Your task to perform on an android device: Go to Yahoo.com Image 0: 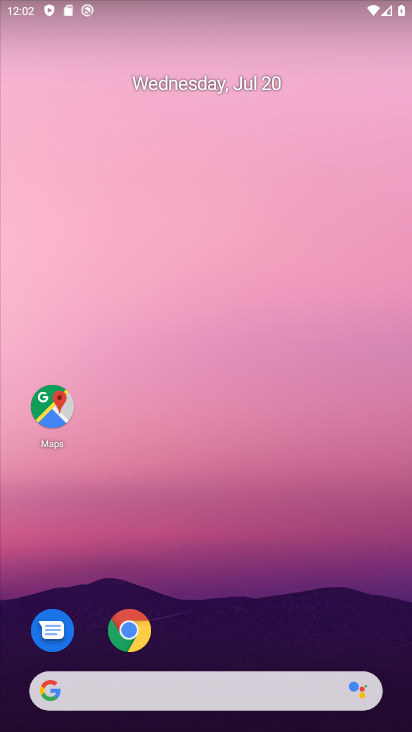
Step 0: click (41, 692)
Your task to perform on an android device: Go to Yahoo.com Image 1: 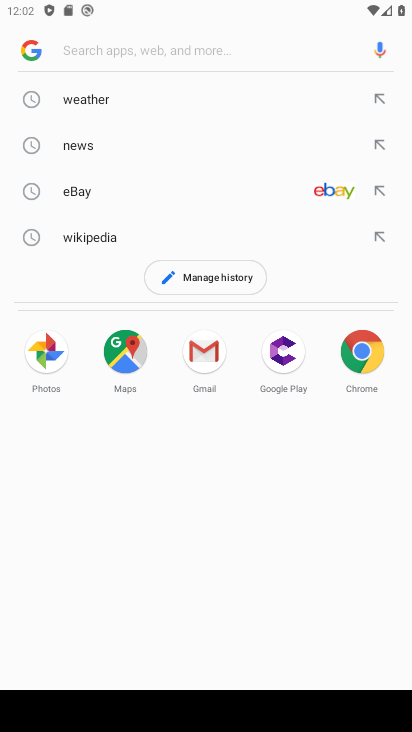
Step 1: type "Yahoo.com"
Your task to perform on an android device: Go to Yahoo.com Image 2: 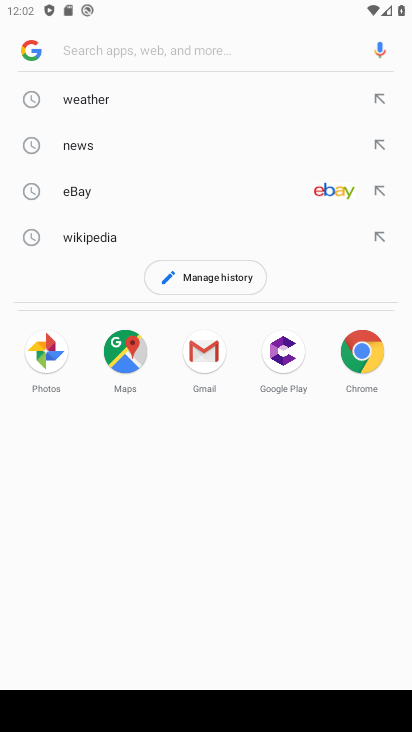
Step 2: click (110, 54)
Your task to perform on an android device: Go to Yahoo.com Image 3: 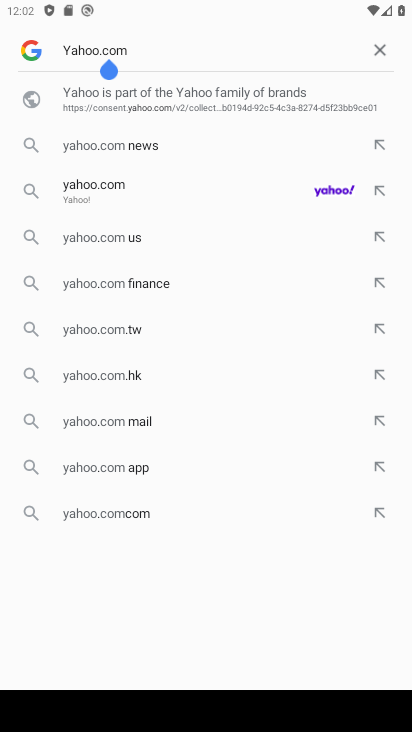
Step 3: press enter
Your task to perform on an android device: Go to Yahoo.com Image 4: 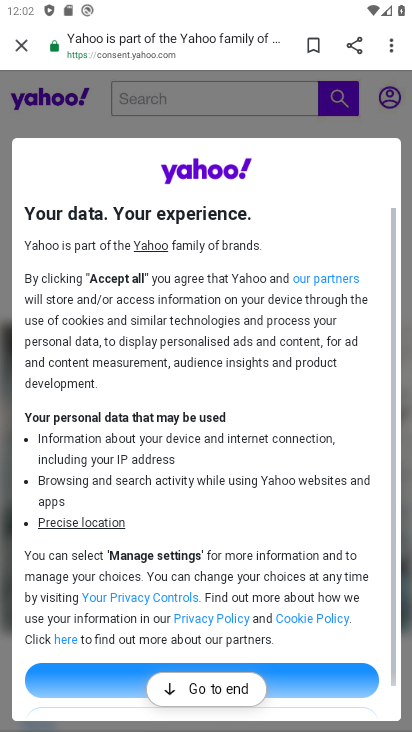
Step 4: click (211, 685)
Your task to perform on an android device: Go to Yahoo.com Image 5: 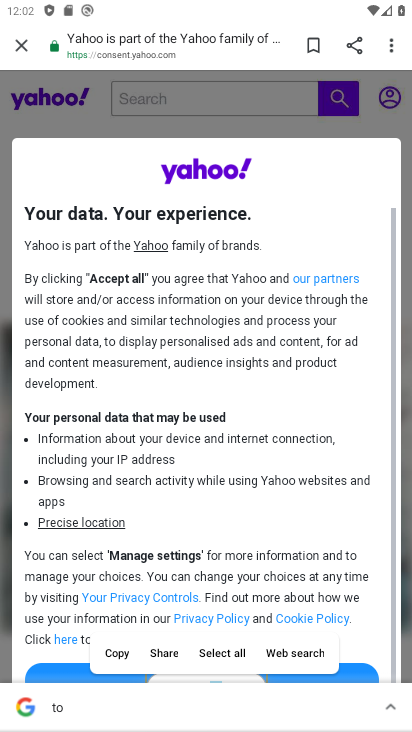
Step 5: click (46, 671)
Your task to perform on an android device: Go to Yahoo.com Image 6: 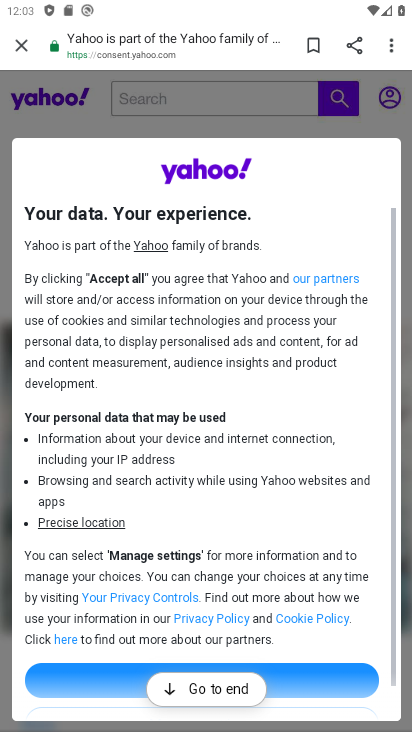
Step 6: click (124, 689)
Your task to perform on an android device: Go to Yahoo.com Image 7: 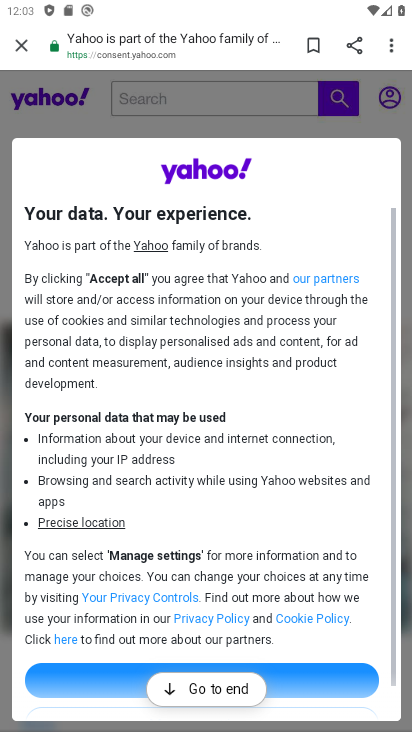
Step 7: drag from (251, 572) to (244, 356)
Your task to perform on an android device: Go to Yahoo.com Image 8: 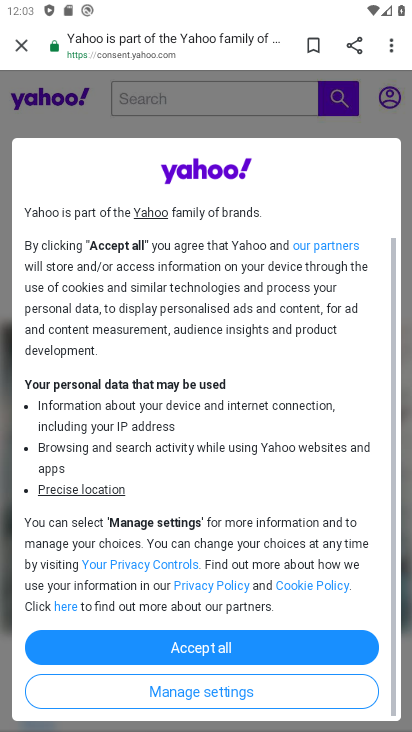
Step 8: click (210, 645)
Your task to perform on an android device: Go to Yahoo.com Image 9: 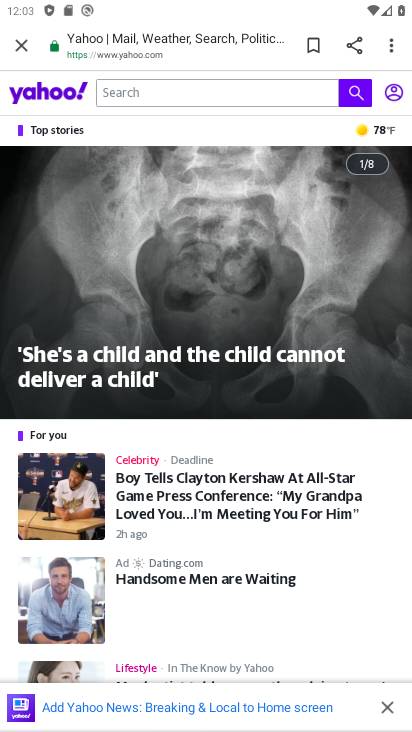
Step 9: task complete